Your task to perform on an android device: Add "razer naga" to the cart on target.com Image 0: 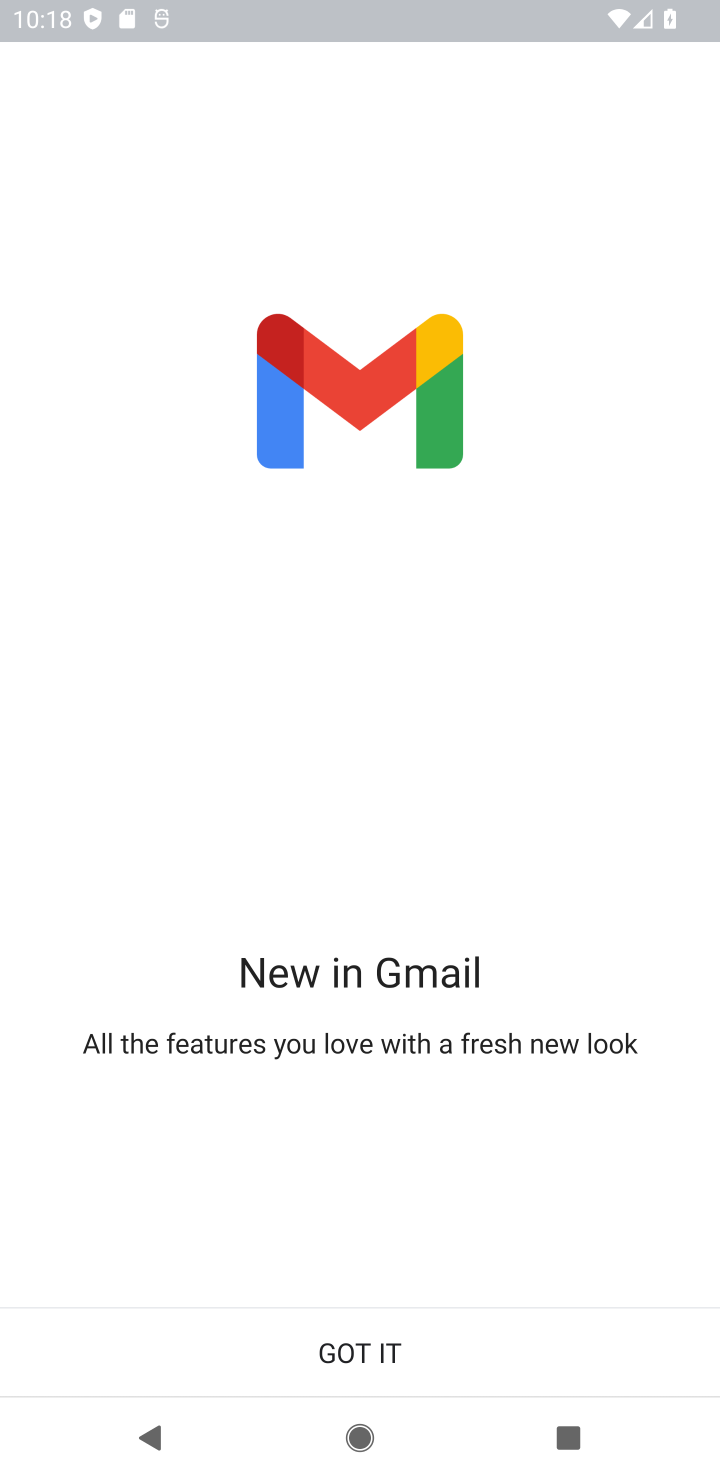
Step 0: press home button
Your task to perform on an android device: Add "razer naga" to the cart on target.com Image 1: 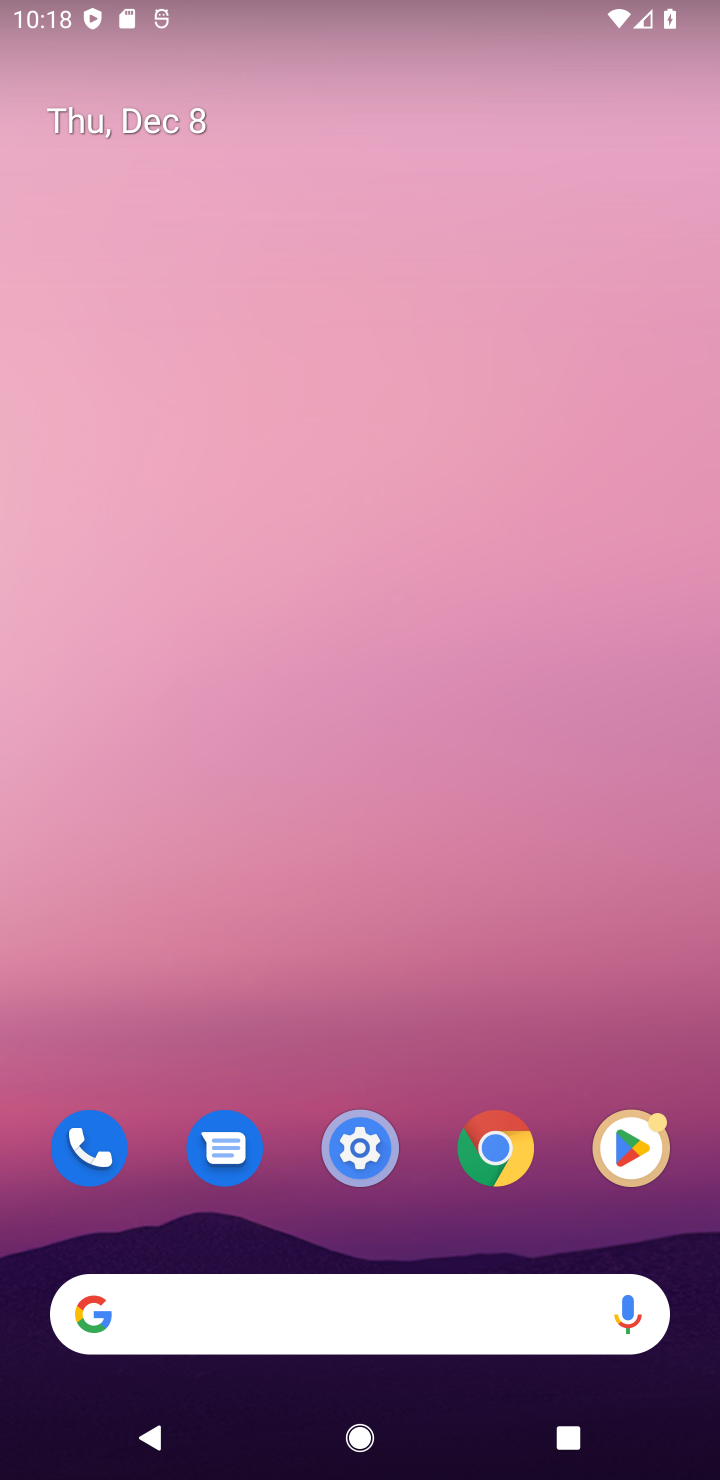
Step 1: click (318, 1315)
Your task to perform on an android device: Add "razer naga" to the cart on target.com Image 2: 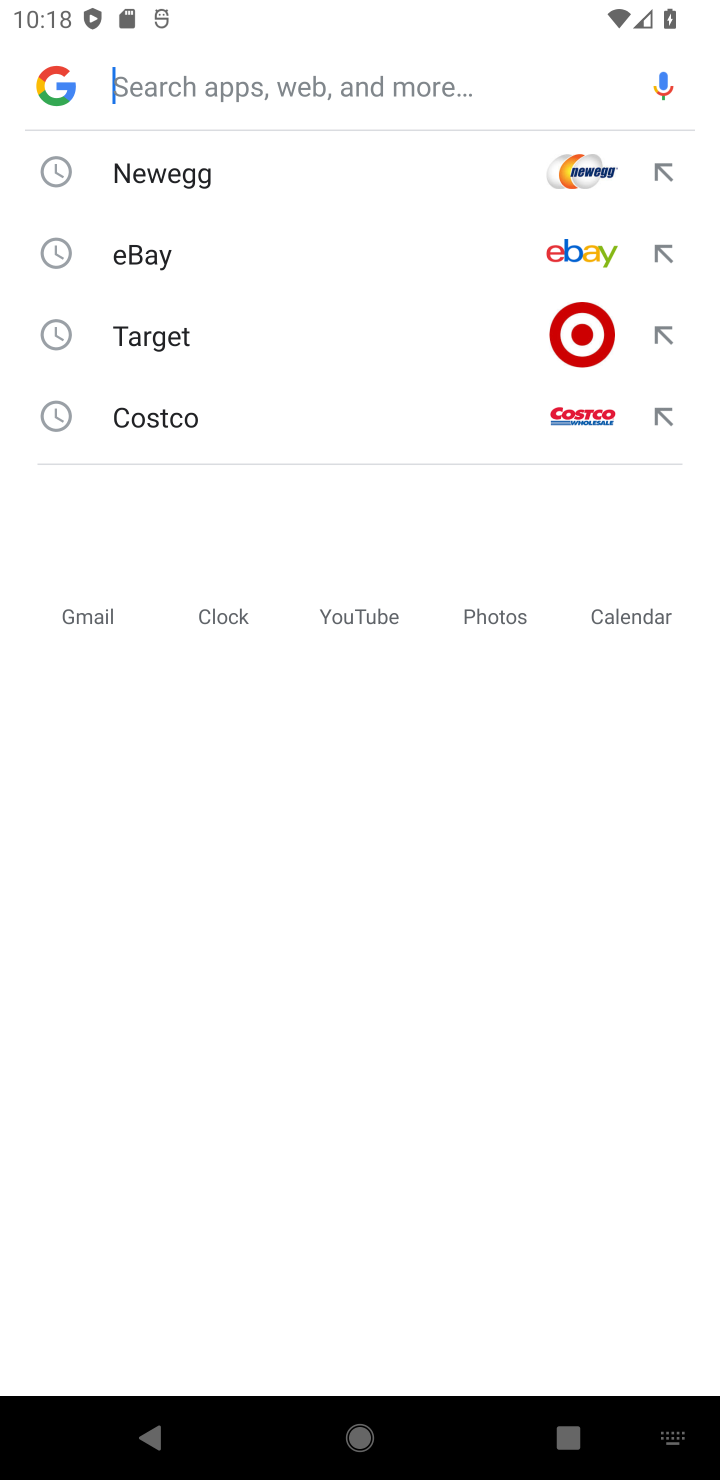
Step 2: click (139, 340)
Your task to perform on an android device: Add "razer naga" to the cart on target.com Image 3: 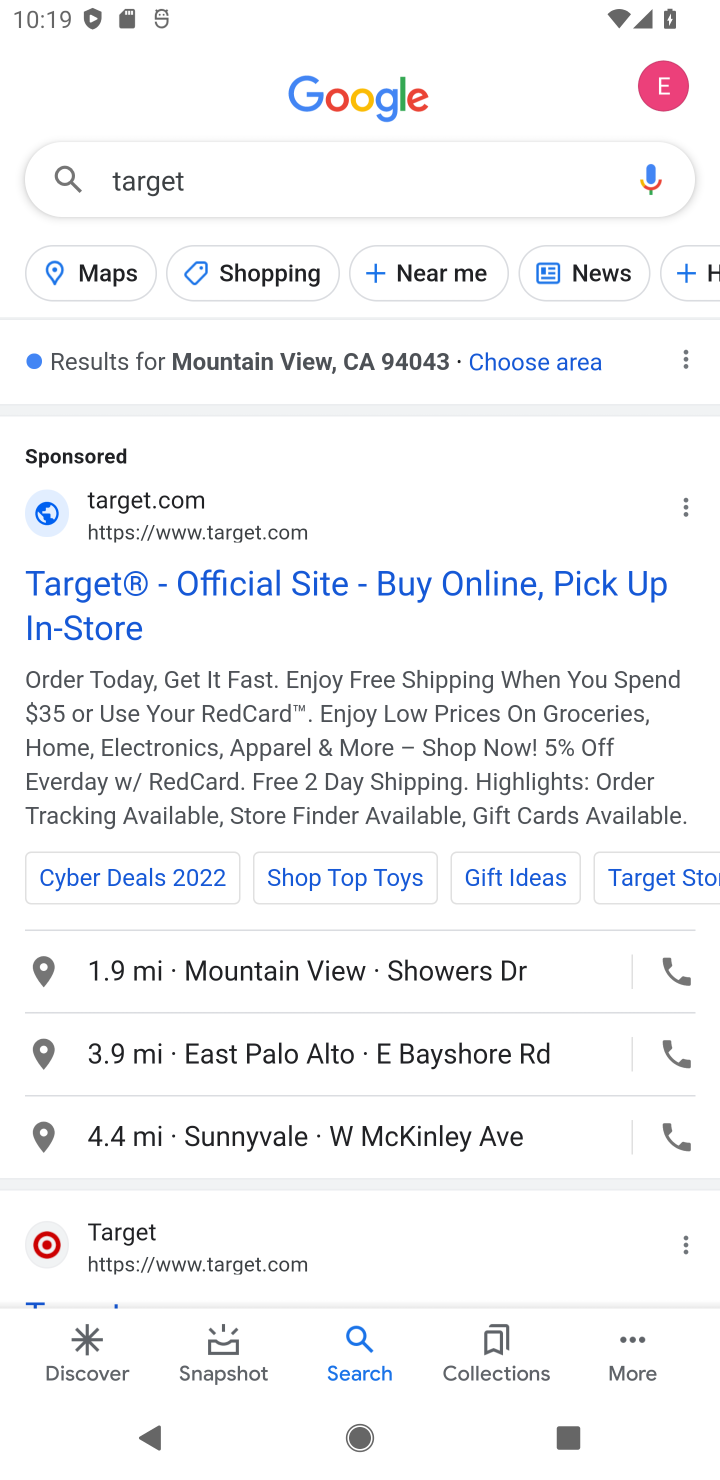
Step 3: click (128, 497)
Your task to perform on an android device: Add "razer naga" to the cart on target.com Image 4: 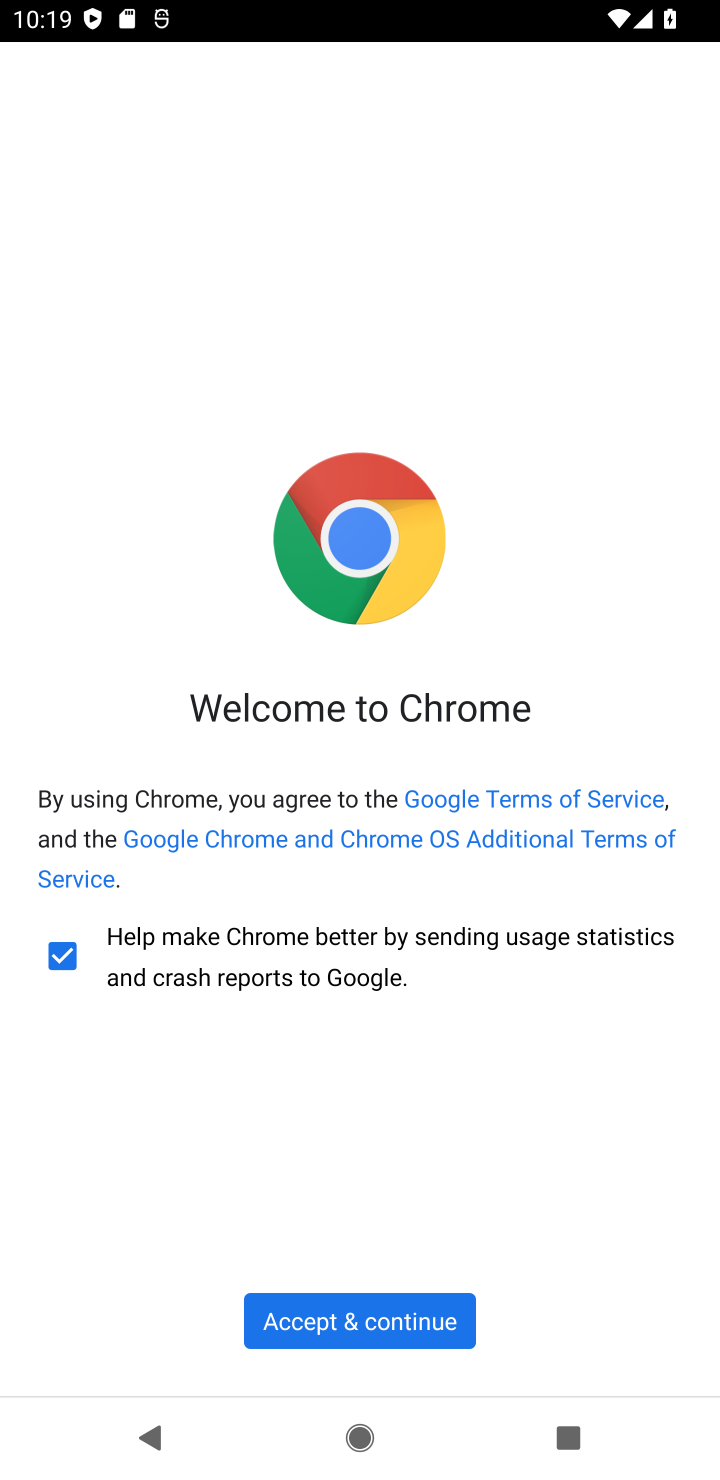
Step 4: click (376, 1314)
Your task to perform on an android device: Add "razer naga" to the cart on target.com Image 5: 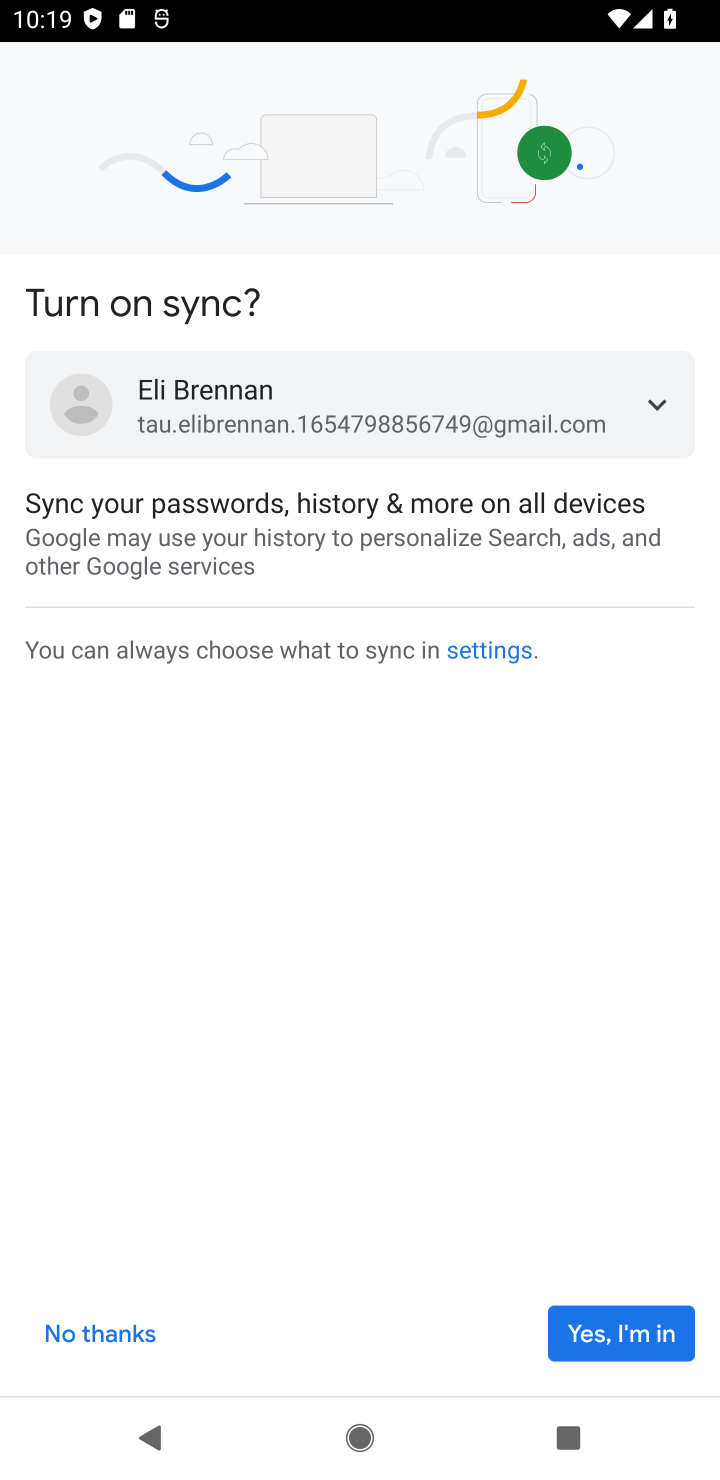
Step 5: click (575, 1364)
Your task to perform on an android device: Add "razer naga" to the cart on target.com Image 6: 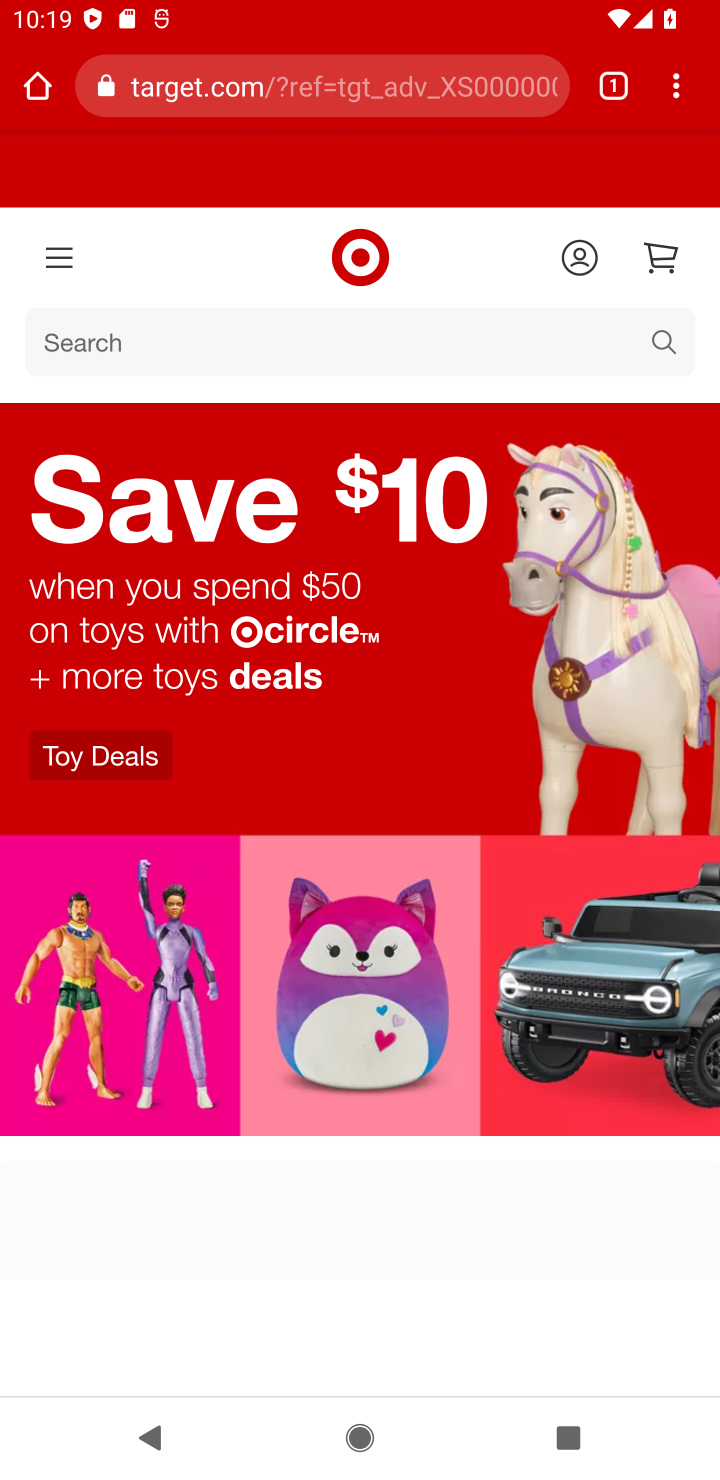
Step 6: click (237, 347)
Your task to perform on an android device: Add "razer naga" to the cart on target.com Image 7: 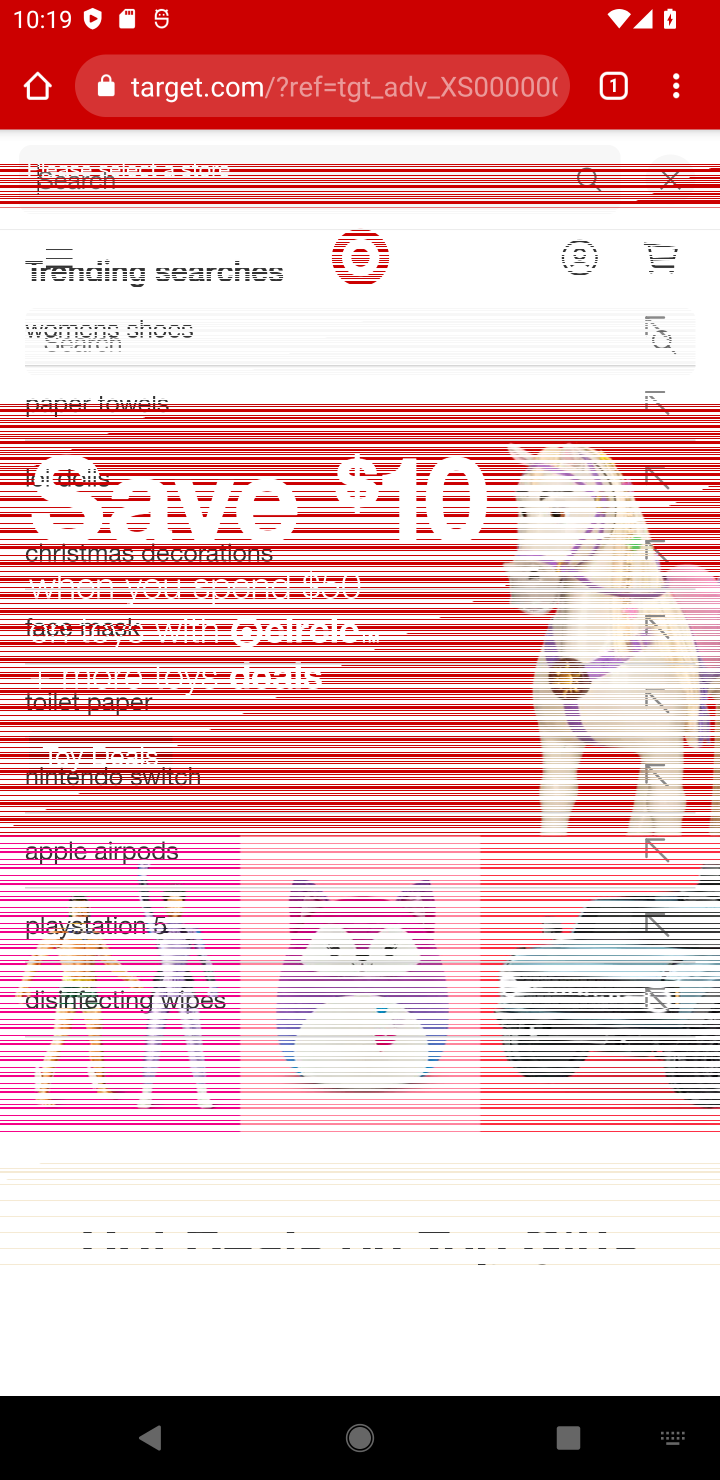
Step 7: click (181, 175)
Your task to perform on an android device: Add "razer naga" to the cart on target.com Image 8: 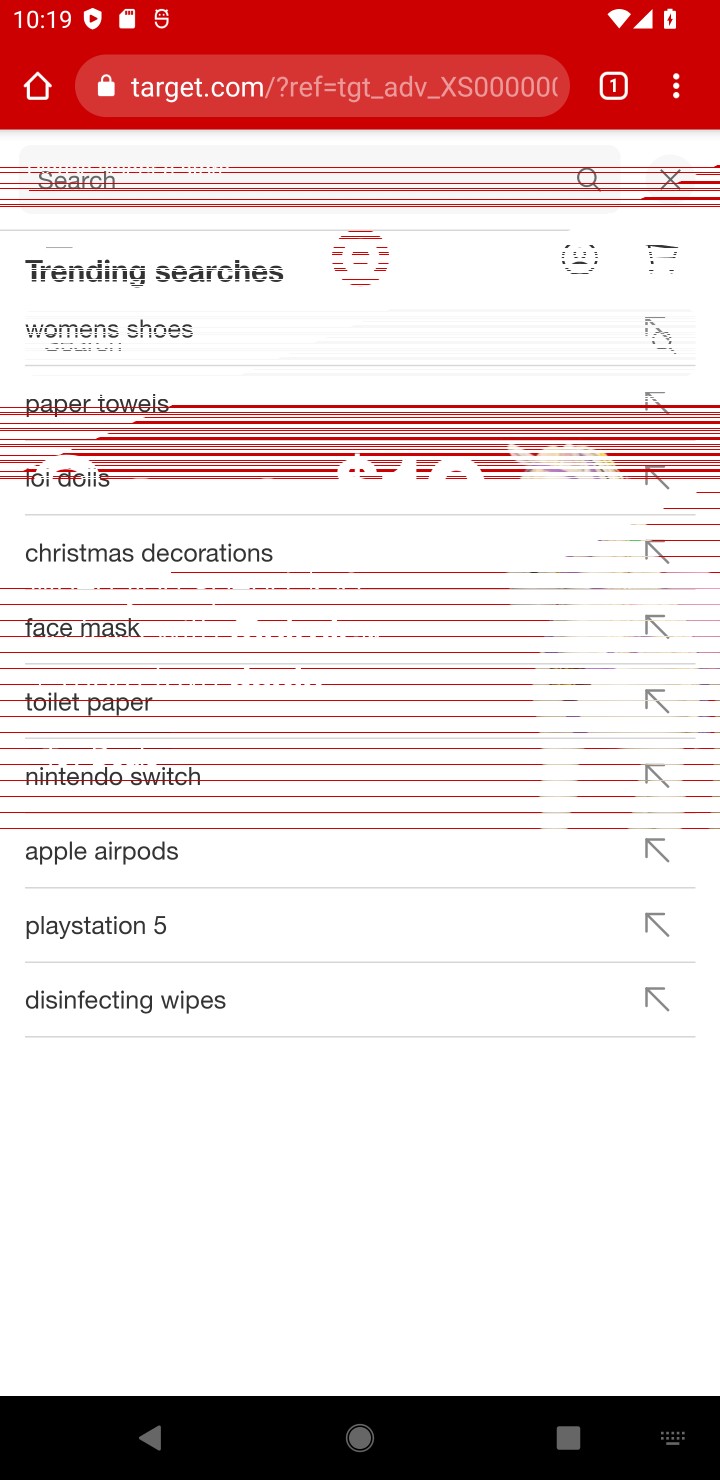
Step 8: type "razer naga"
Your task to perform on an android device: Add "razer naga" to the cart on target.com Image 9: 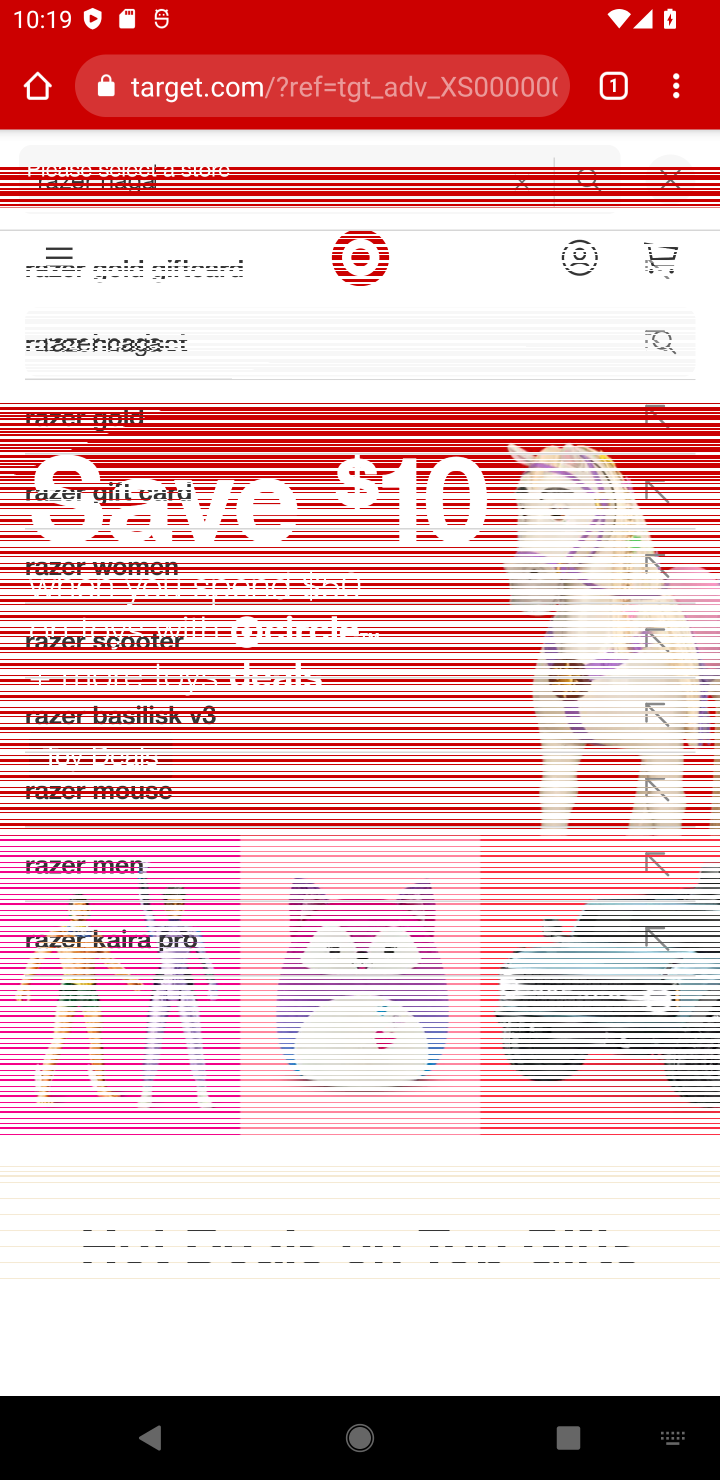
Step 9: click (595, 183)
Your task to perform on an android device: Add "razer naga" to the cart on target.com Image 10: 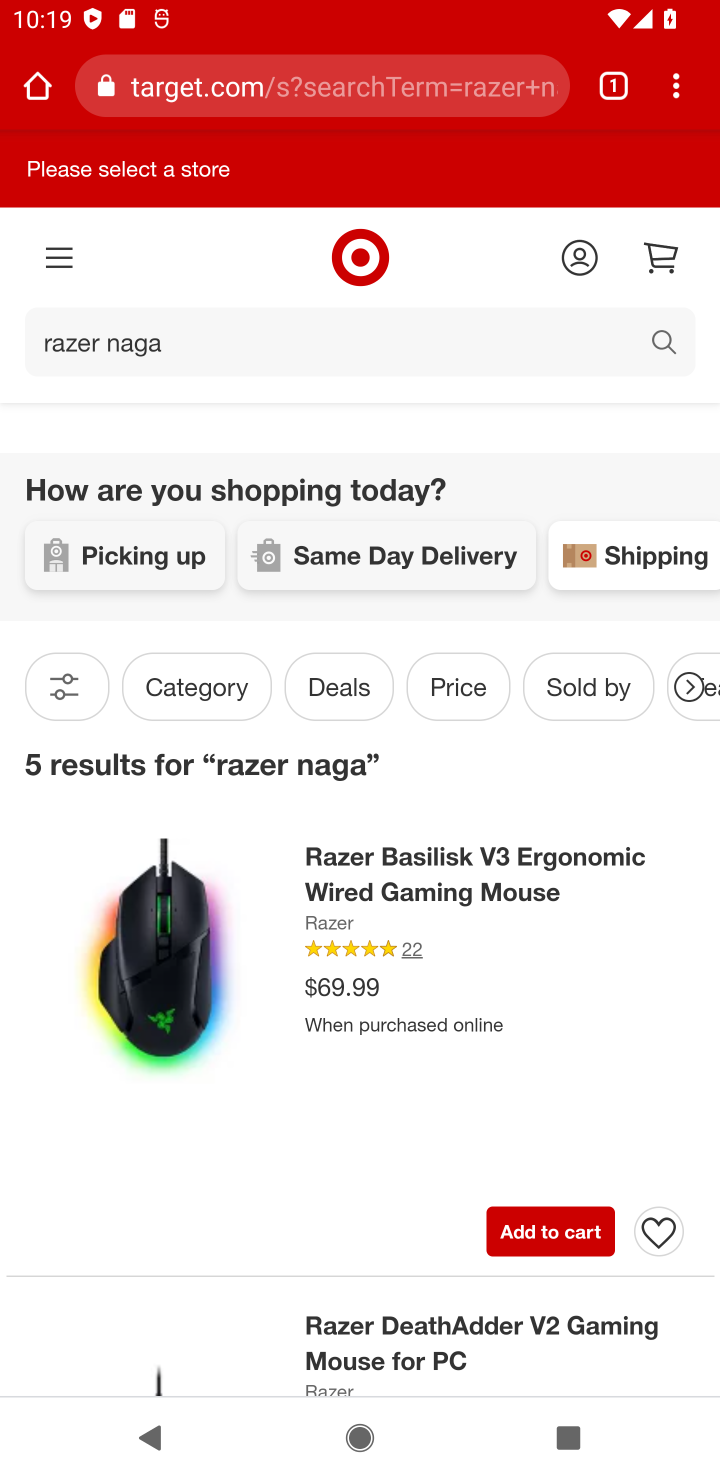
Step 10: click (549, 1223)
Your task to perform on an android device: Add "razer naga" to the cart on target.com Image 11: 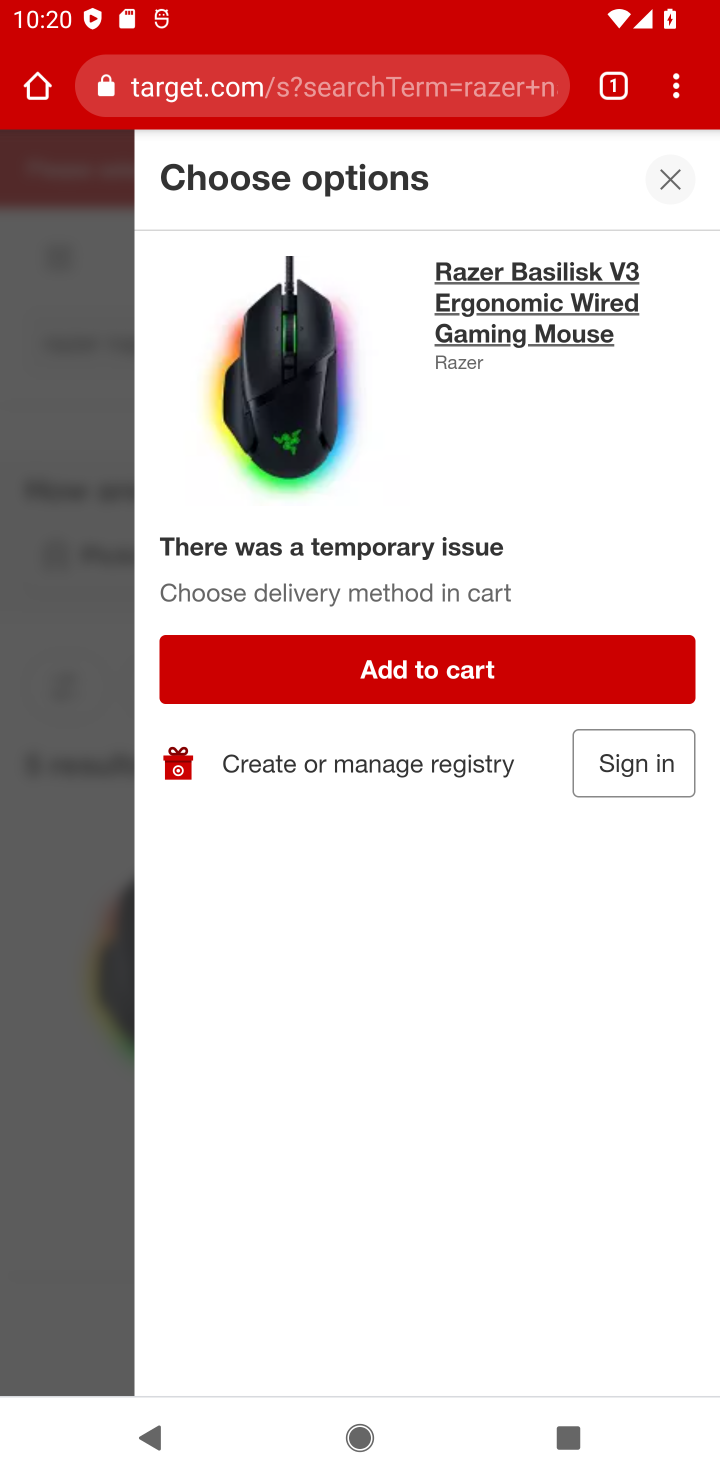
Step 11: click (407, 670)
Your task to perform on an android device: Add "razer naga" to the cart on target.com Image 12: 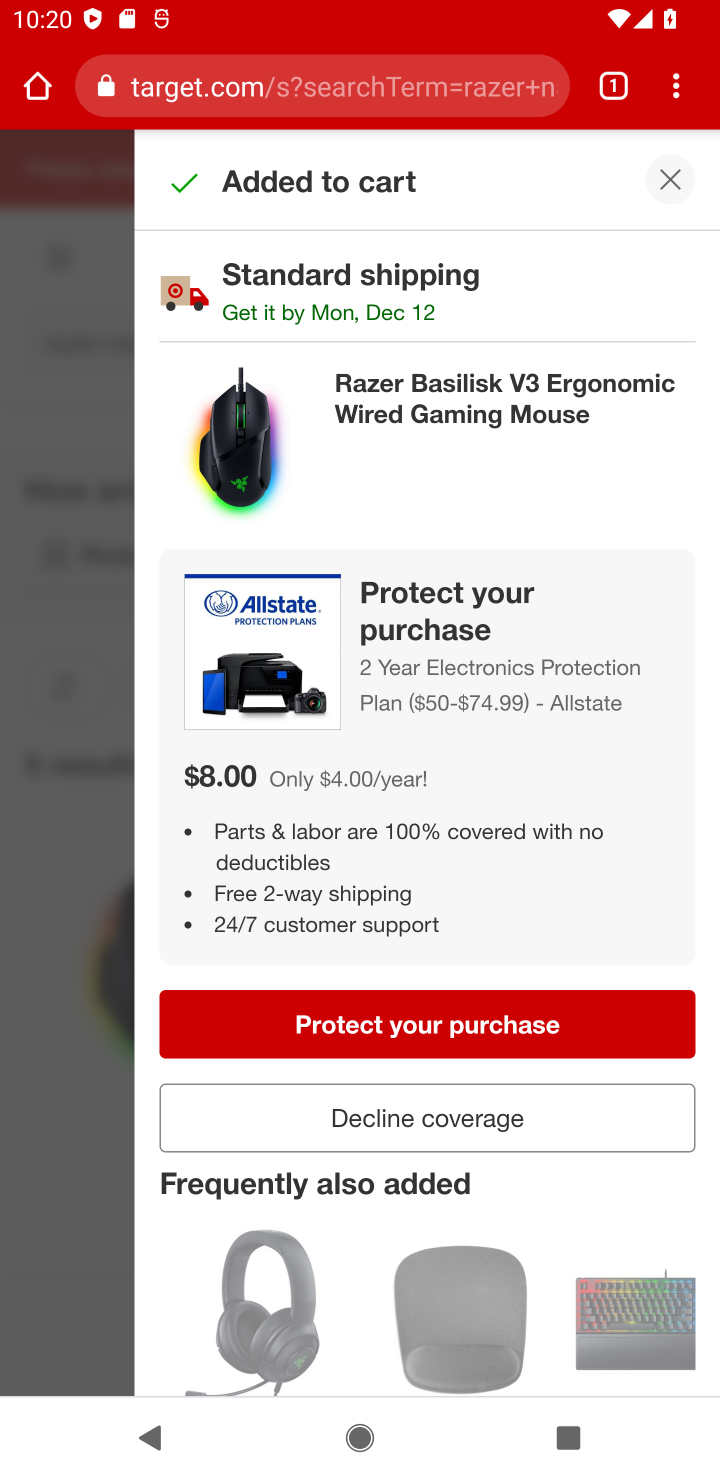
Step 12: task complete